Your task to perform on an android device: How much does a 3 bedroom apartment rent for in Boston? Image 0: 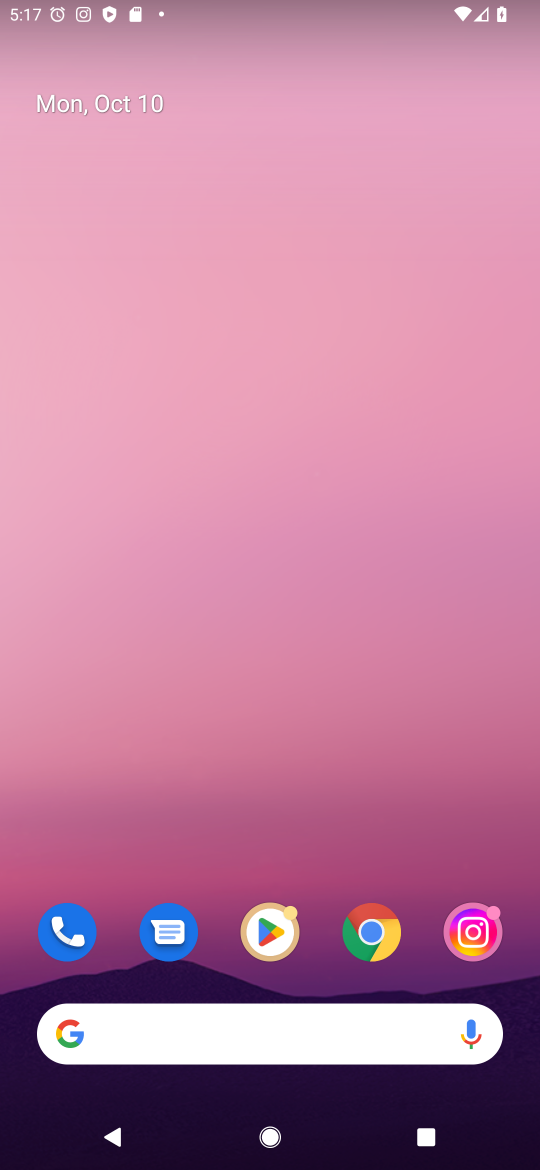
Step 0: click (304, 1041)
Your task to perform on an android device: How much does a 3 bedroom apartment rent for in Boston? Image 1: 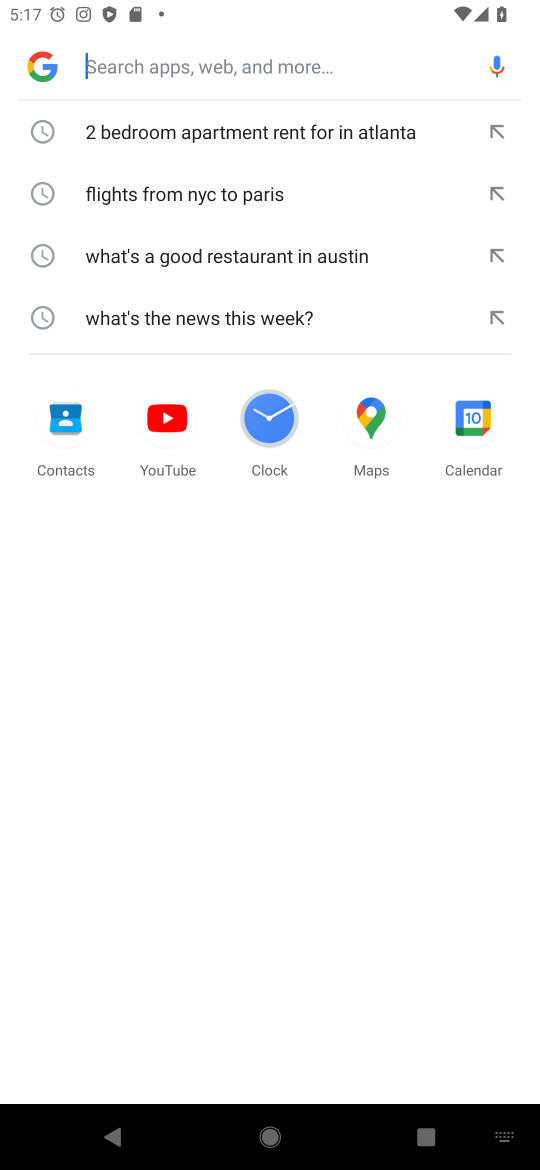
Step 1: type "3 bedroom apartment rent for in Boston"
Your task to perform on an android device: How much does a 3 bedroom apartment rent for in Boston? Image 2: 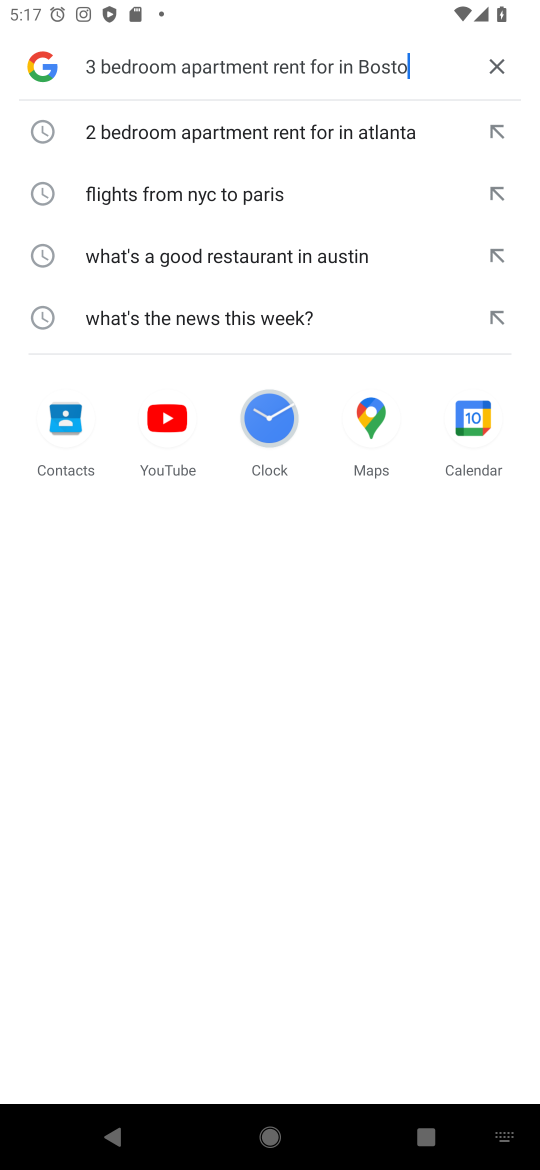
Step 2: press enter
Your task to perform on an android device: How much does a 3 bedroom apartment rent for in Boston? Image 3: 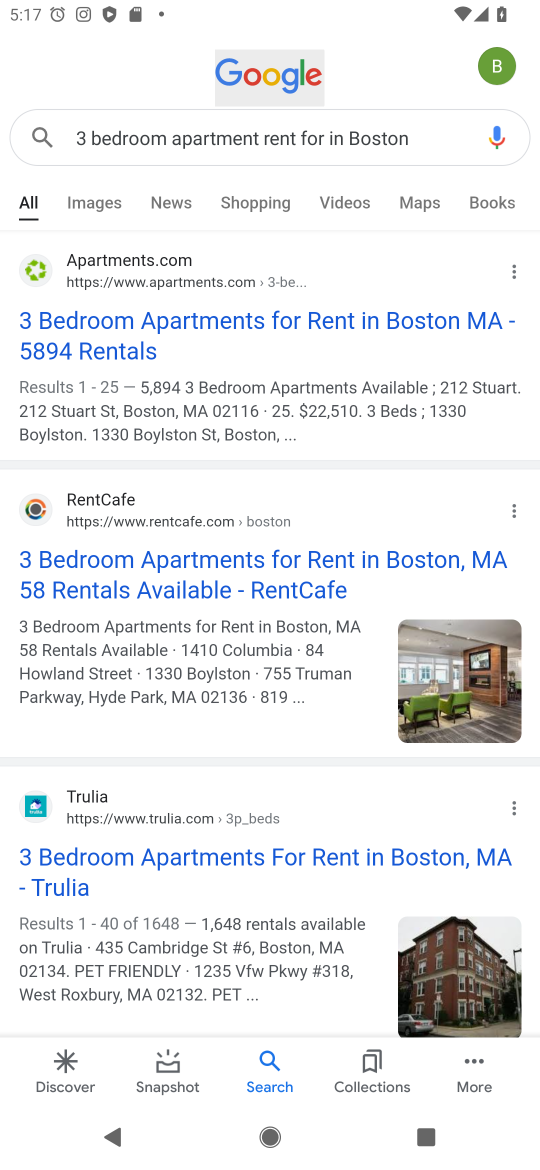
Step 3: click (153, 557)
Your task to perform on an android device: How much does a 3 bedroom apartment rent for in Boston? Image 4: 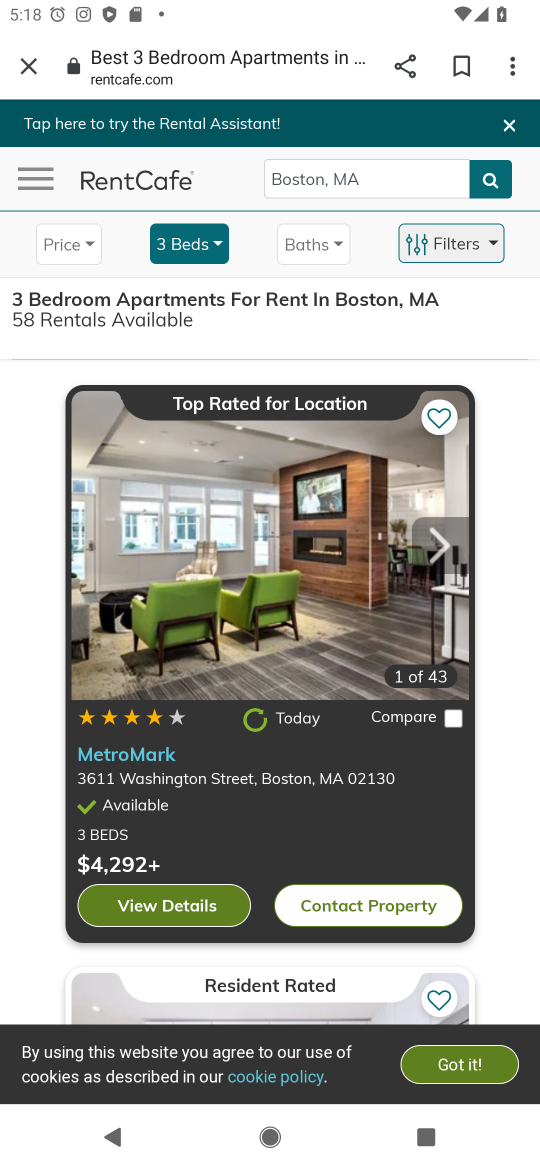
Step 4: task complete